Your task to perform on an android device: Show the shopping cart on amazon.com. Add asus rog to the cart on amazon.com Image 0: 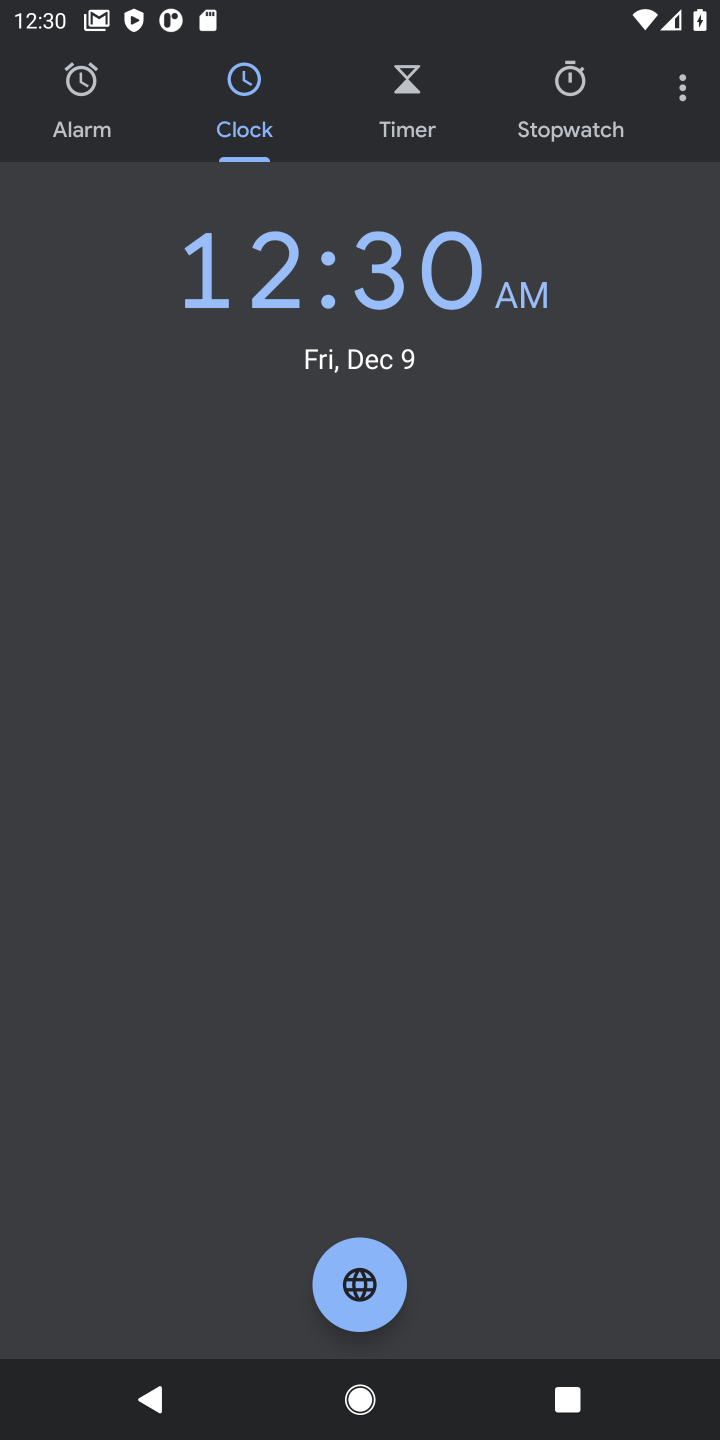
Step 0: press home button
Your task to perform on an android device: Show the shopping cart on amazon.com. Add asus rog to the cart on amazon.com Image 1: 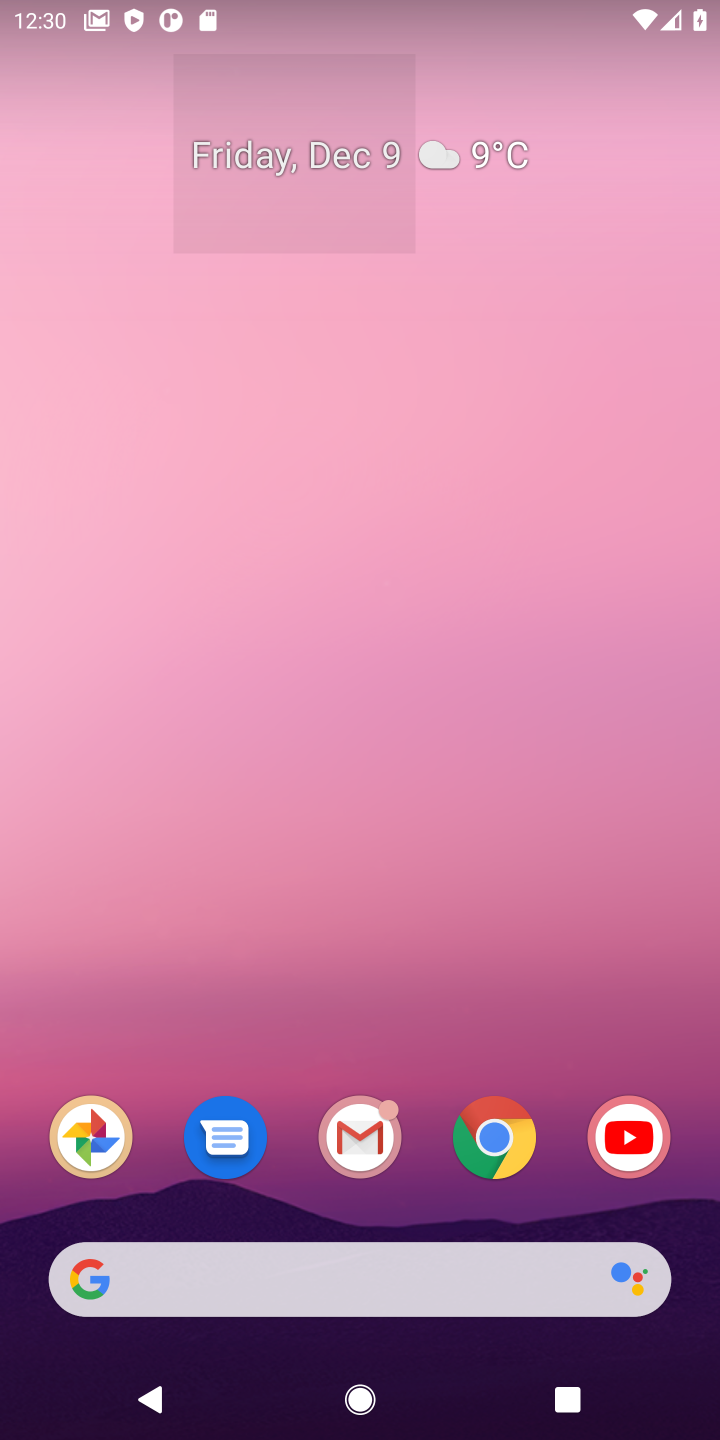
Step 1: click (376, 1313)
Your task to perform on an android device: Show the shopping cart on amazon.com. Add asus rog to the cart on amazon.com Image 2: 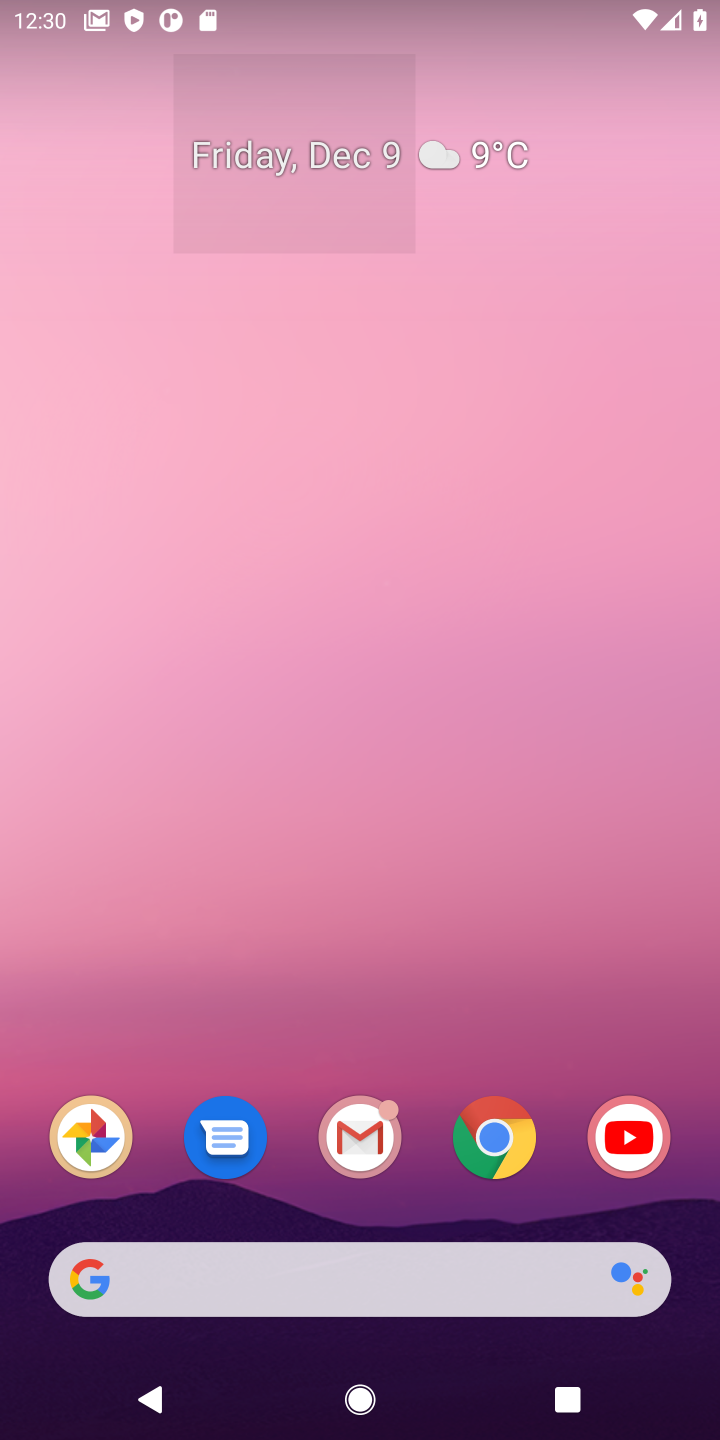
Step 2: click (376, 1313)
Your task to perform on an android device: Show the shopping cart on amazon.com. Add asus rog to the cart on amazon.com Image 3: 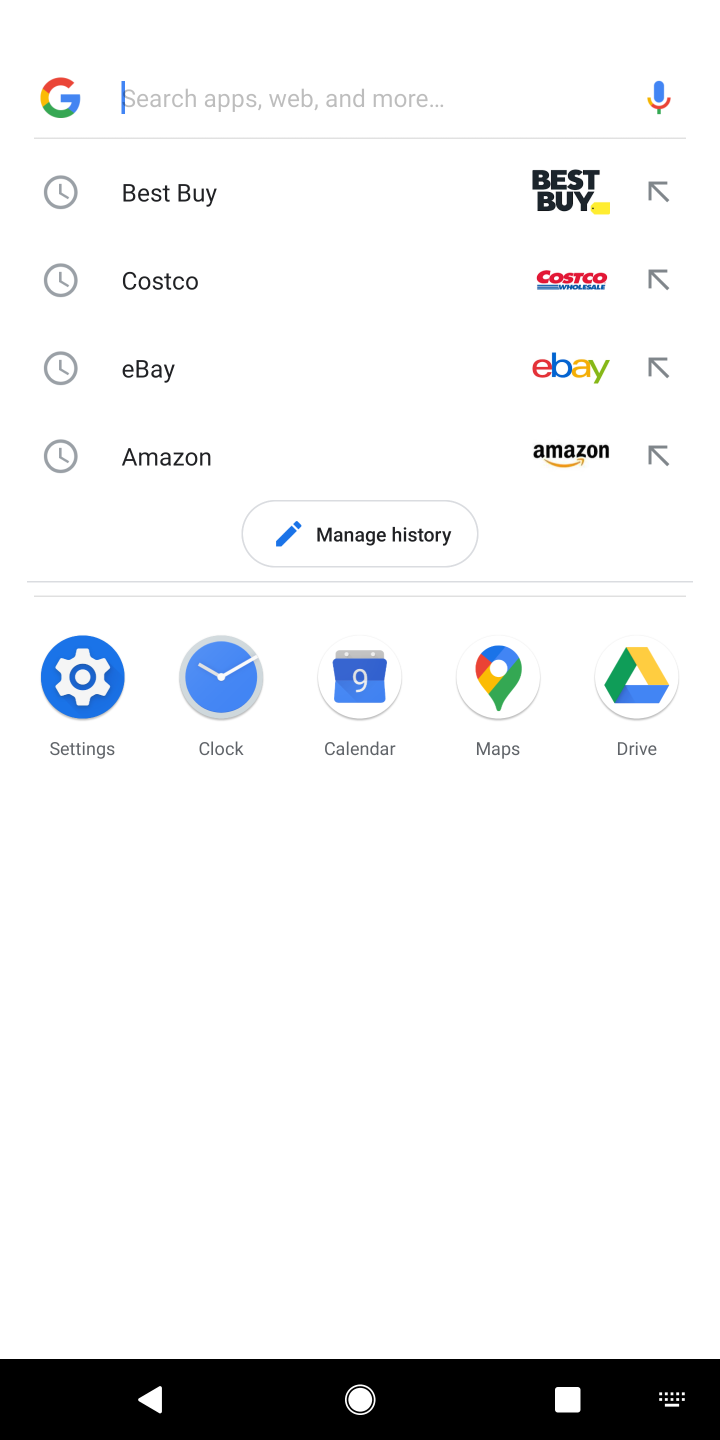
Step 3: click (252, 442)
Your task to perform on an android device: Show the shopping cart on amazon.com. Add asus rog to the cart on amazon.com Image 4: 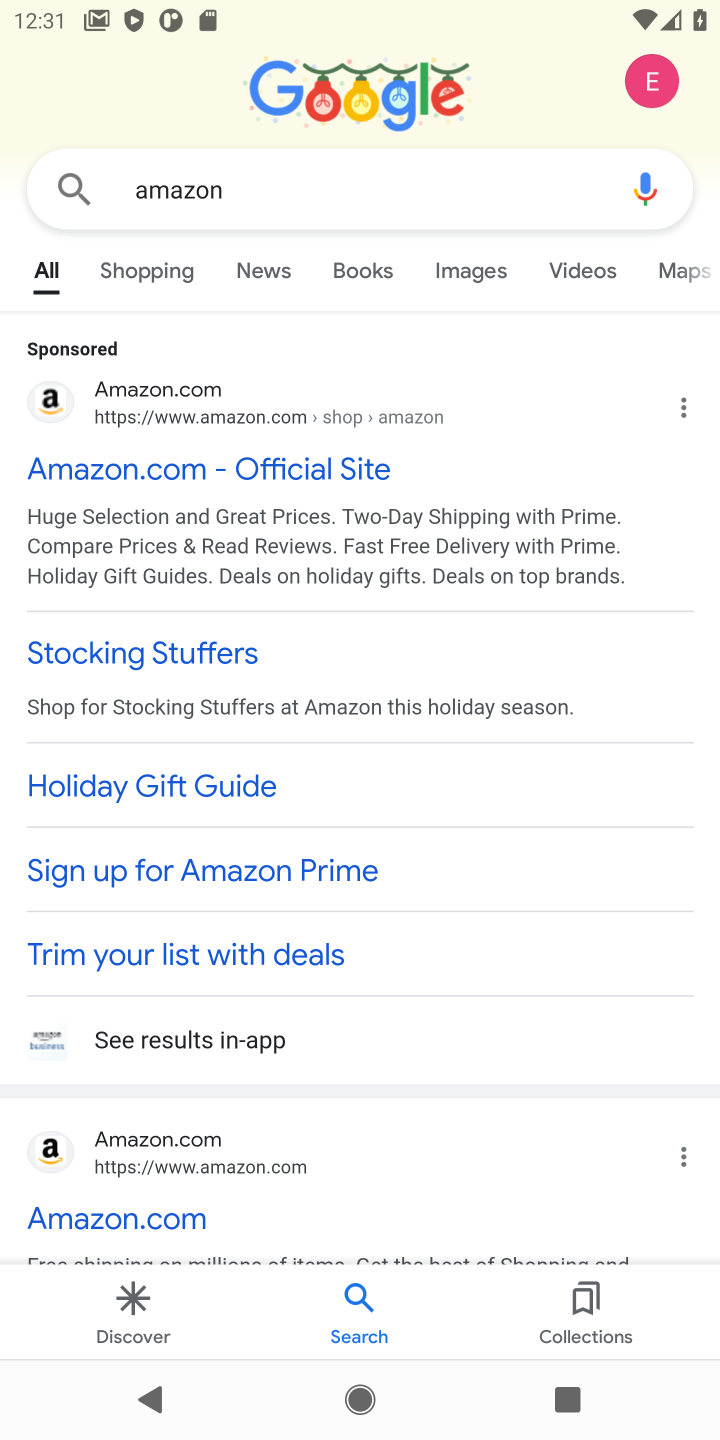
Step 4: click (88, 492)
Your task to perform on an android device: Show the shopping cart on amazon.com. Add asus rog to the cart on amazon.com Image 5: 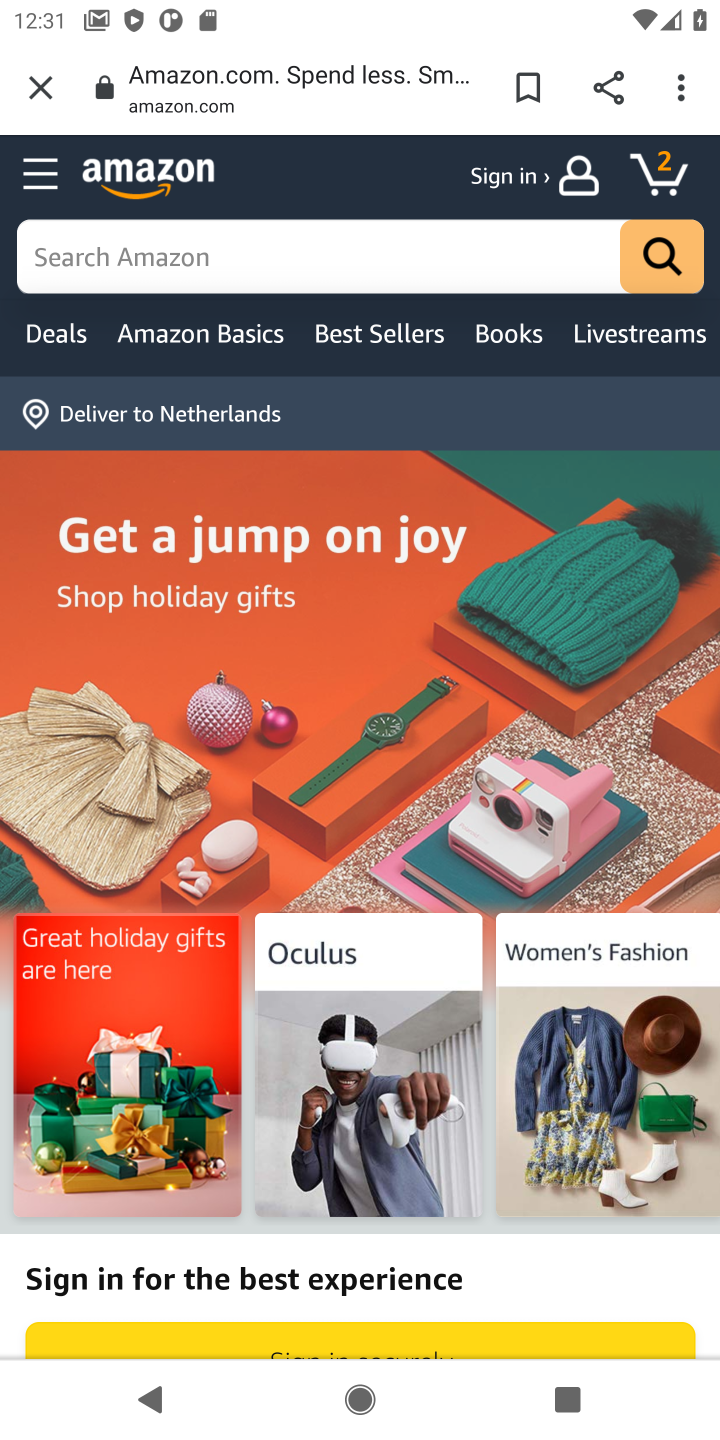
Step 5: click (326, 242)
Your task to perform on an android device: Show the shopping cart on amazon.com. Add asus rog to the cart on amazon.com Image 6: 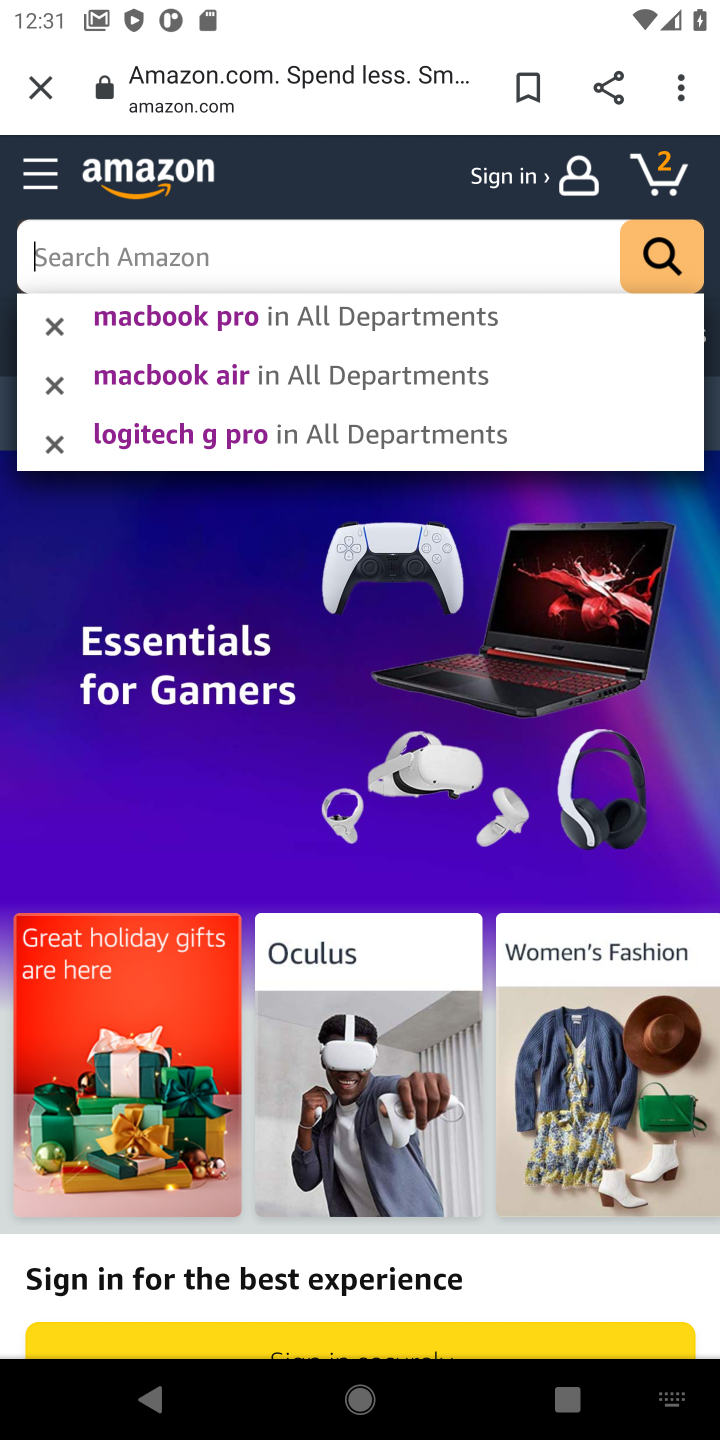
Step 6: type "asus ror"
Your task to perform on an android device: Show the shopping cart on amazon.com. Add asus rog to the cart on amazon.com Image 7: 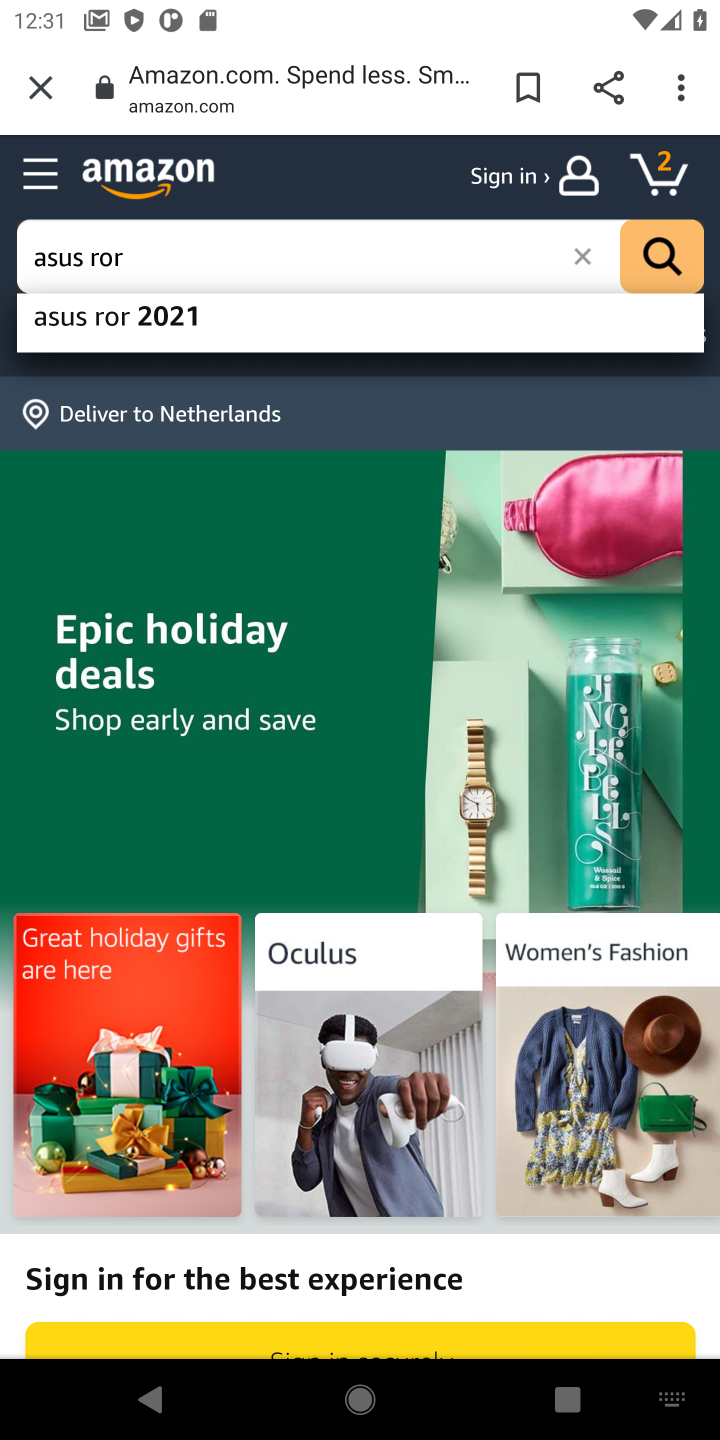
Step 7: click (673, 253)
Your task to perform on an android device: Show the shopping cart on amazon.com. Add asus rog to the cart on amazon.com Image 8: 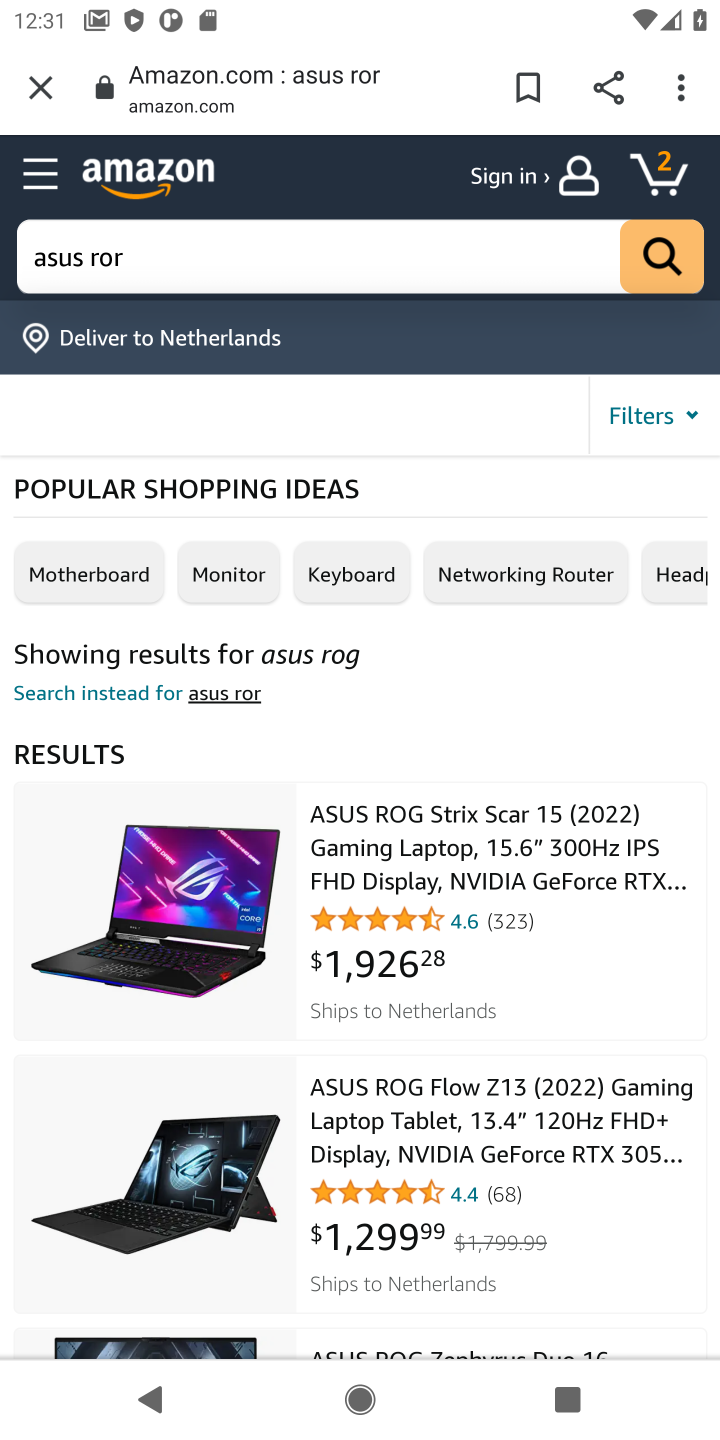
Step 8: click (427, 849)
Your task to perform on an android device: Show the shopping cart on amazon.com. Add asus rog to the cart on amazon.com Image 9: 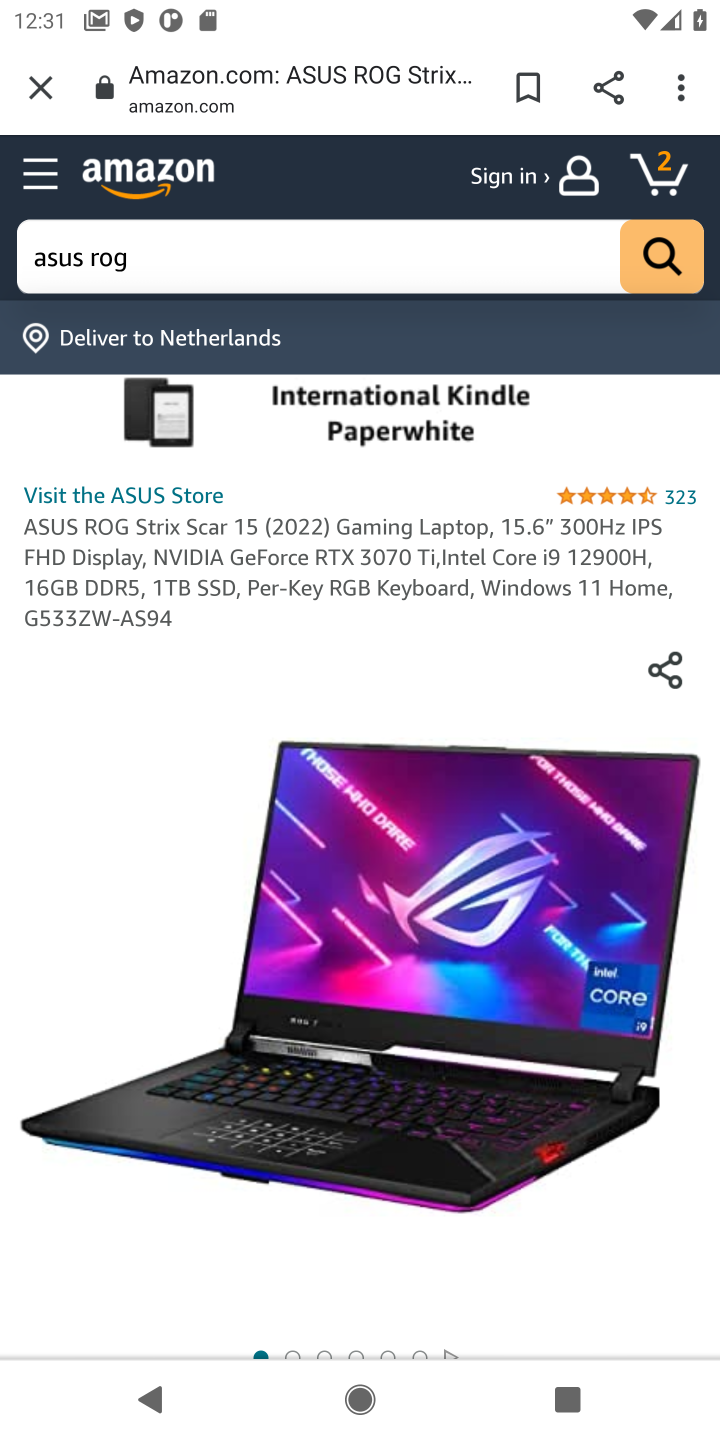
Step 9: drag from (499, 1153) to (420, 226)
Your task to perform on an android device: Show the shopping cart on amazon.com. Add asus rog to the cart on amazon.com Image 10: 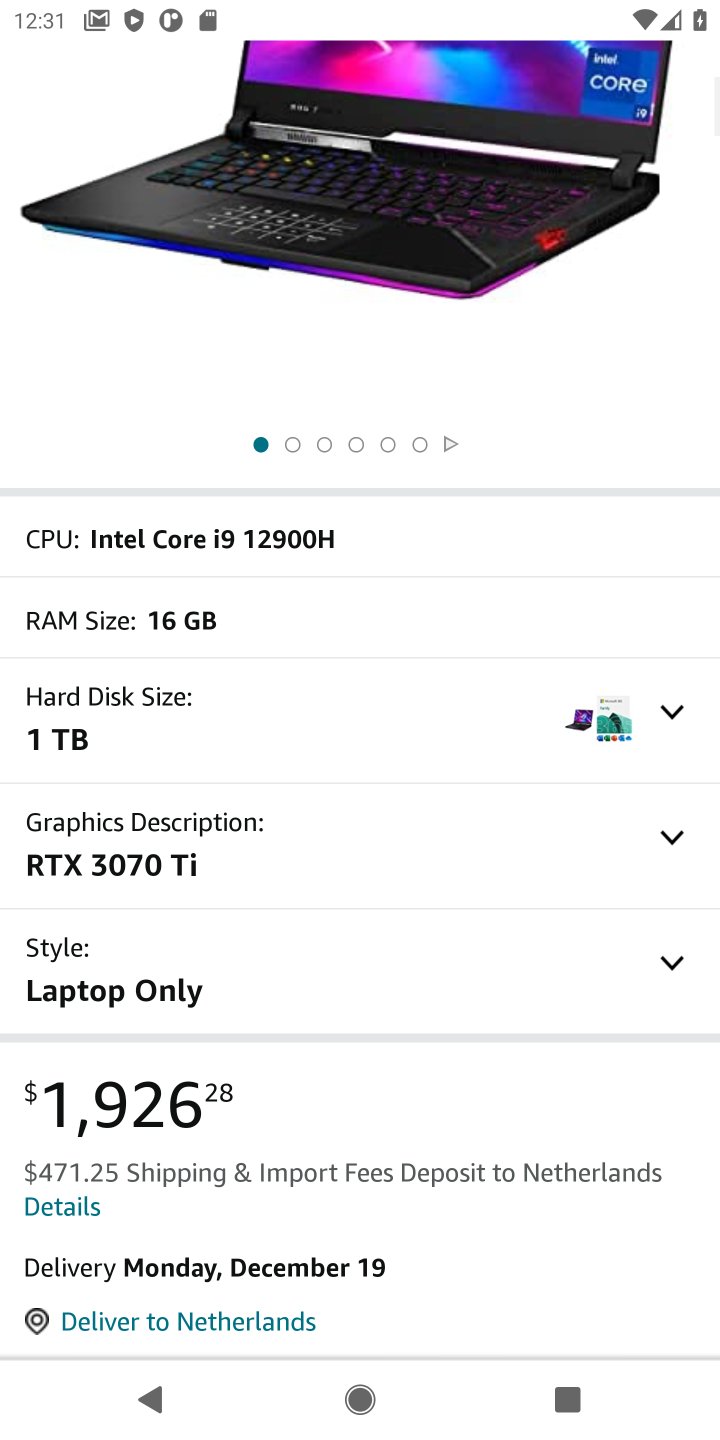
Step 10: drag from (354, 1196) to (322, 434)
Your task to perform on an android device: Show the shopping cart on amazon.com. Add asus rog to the cart on amazon.com Image 11: 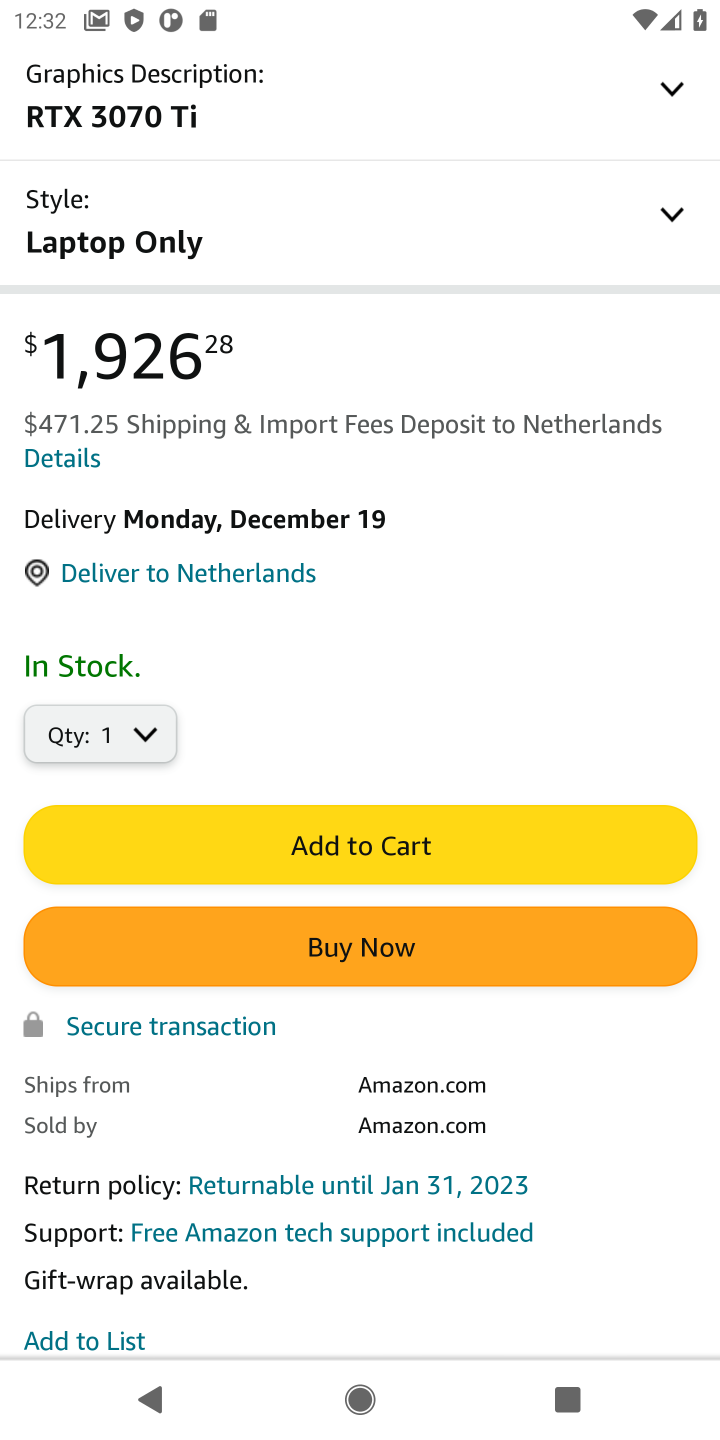
Step 11: click (397, 868)
Your task to perform on an android device: Show the shopping cart on amazon.com. Add asus rog to the cart on amazon.com Image 12: 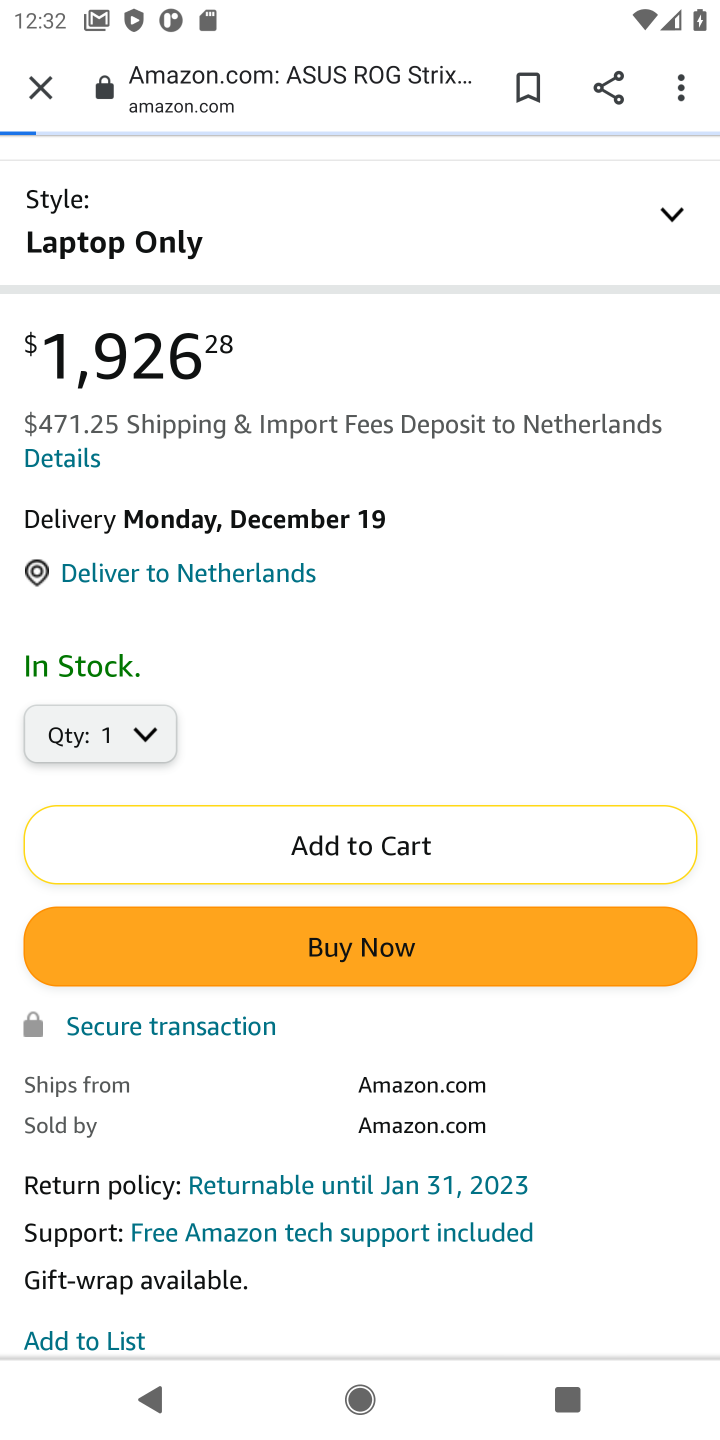
Step 12: task complete